Your task to perform on an android device: delete location history Image 0: 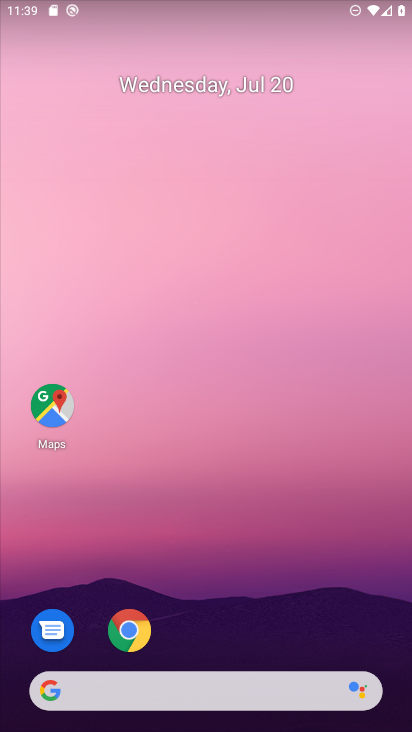
Step 0: drag from (237, 627) to (250, 184)
Your task to perform on an android device: delete location history Image 1: 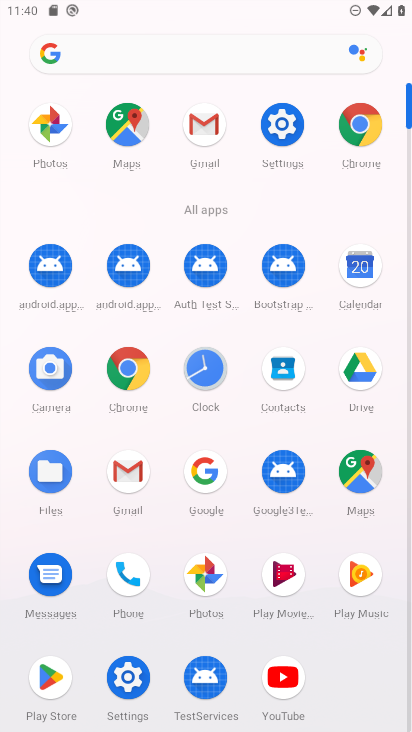
Step 1: click (129, 667)
Your task to perform on an android device: delete location history Image 2: 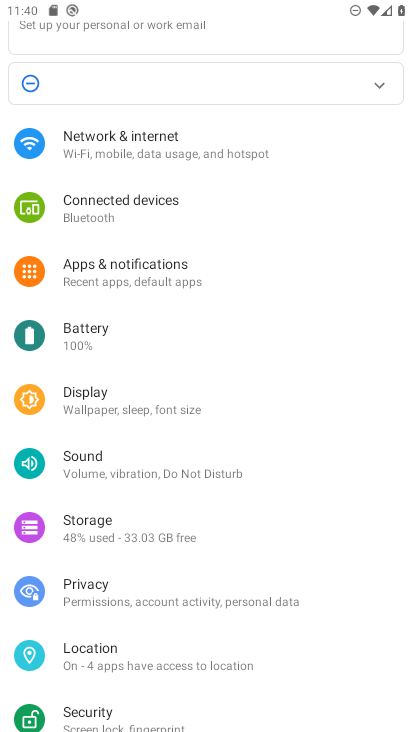
Step 2: press home button
Your task to perform on an android device: delete location history Image 3: 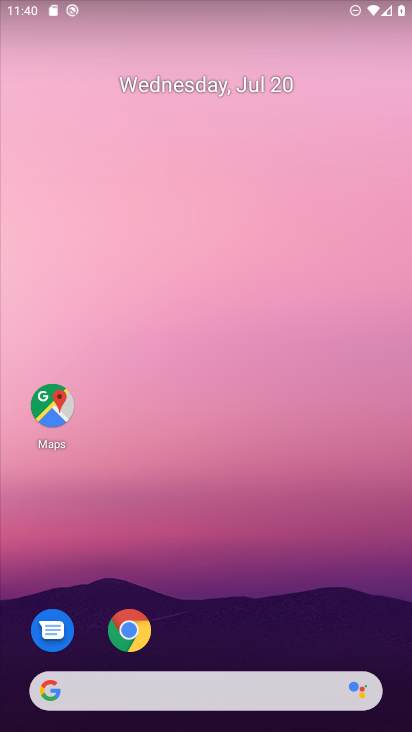
Step 3: click (39, 394)
Your task to perform on an android device: delete location history Image 4: 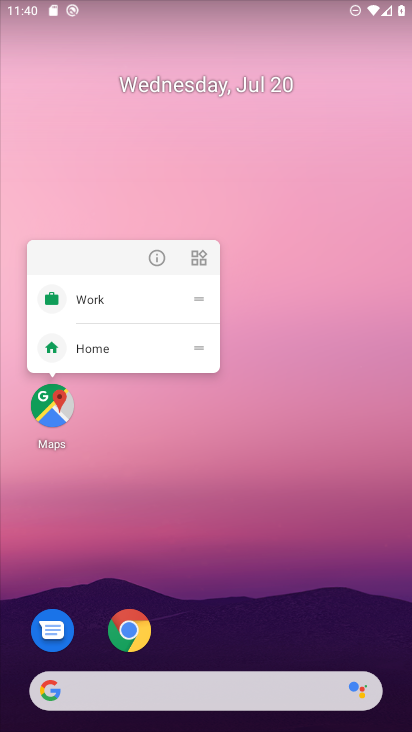
Step 4: click (51, 427)
Your task to perform on an android device: delete location history Image 5: 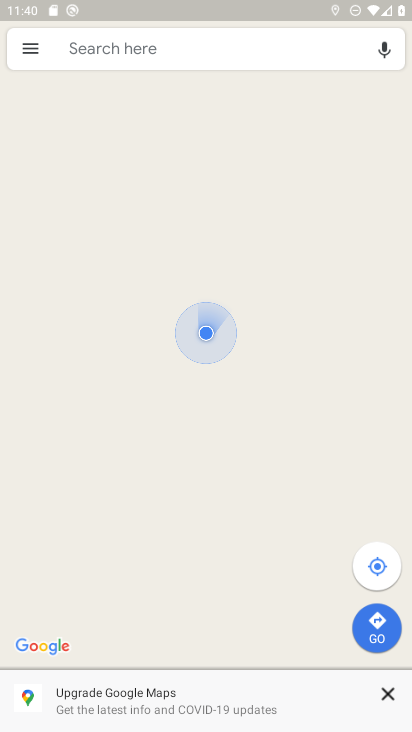
Step 5: click (27, 50)
Your task to perform on an android device: delete location history Image 6: 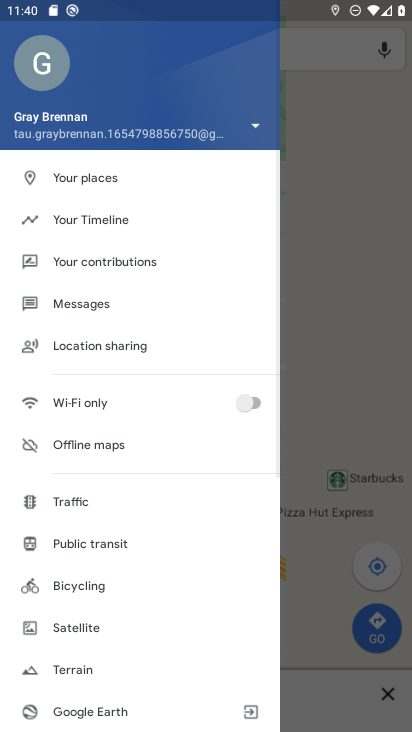
Step 6: click (111, 224)
Your task to perform on an android device: delete location history Image 7: 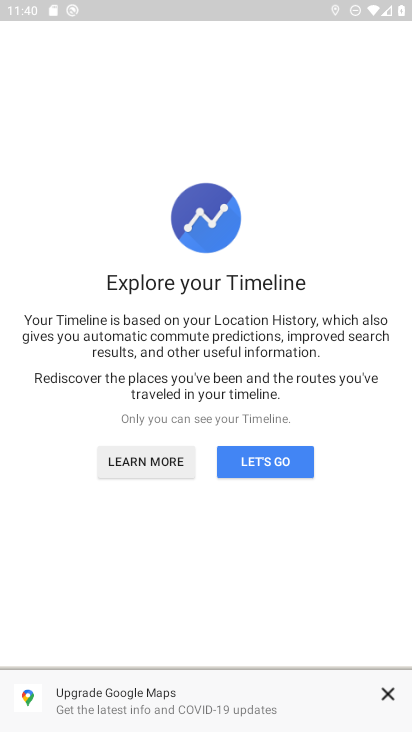
Step 7: click (267, 463)
Your task to perform on an android device: delete location history Image 8: 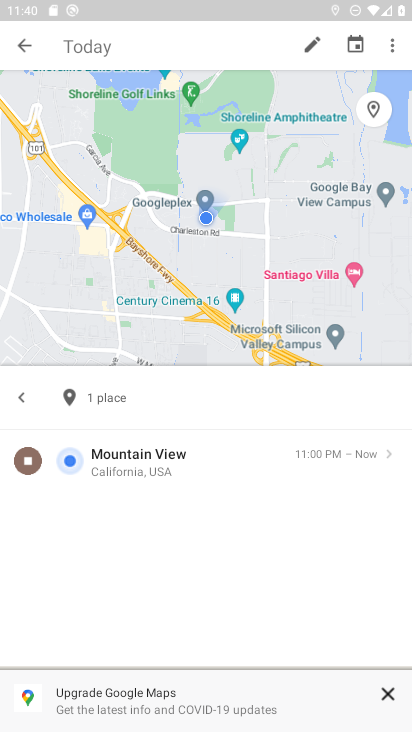
Step 8: click (390, 43)
Your task to perform on an android device: delete location history Image 9: 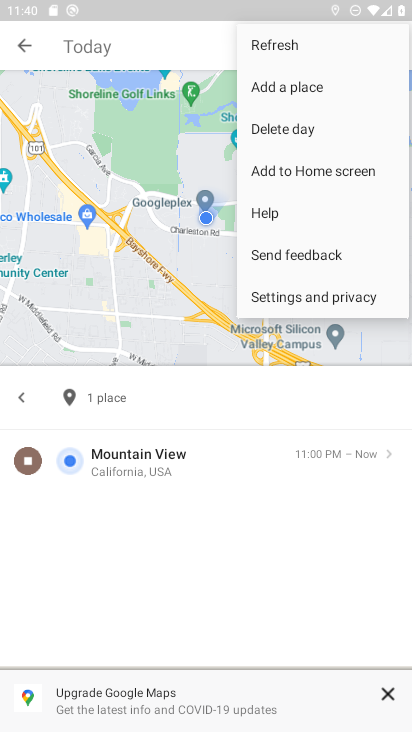
Step 9: click (304, 300)
Your task to perform on an android device: delete location history Image 10: 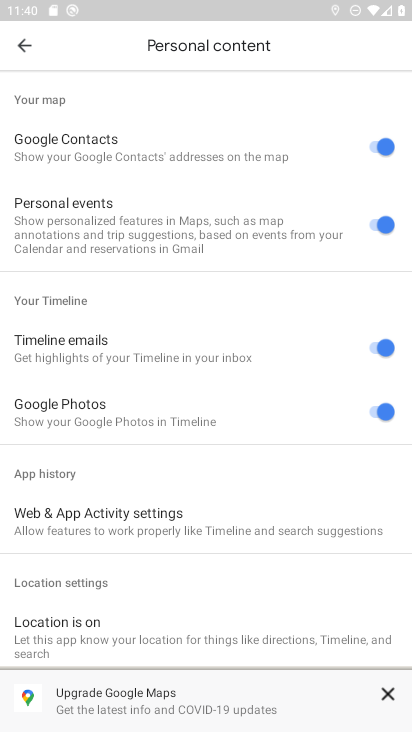
Step 10: drag from (184, 602) to (191, 340)
Your task to perform on an android device: delete location history Image 11: 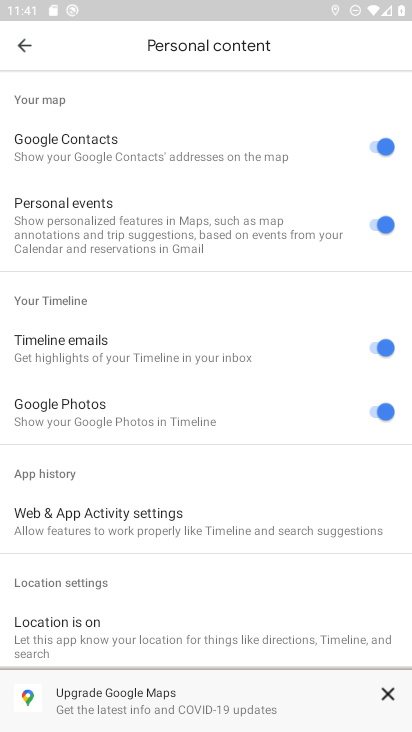
Step 11: click (382, 696)
Your task to perform on an android device: delete location history Image 12: 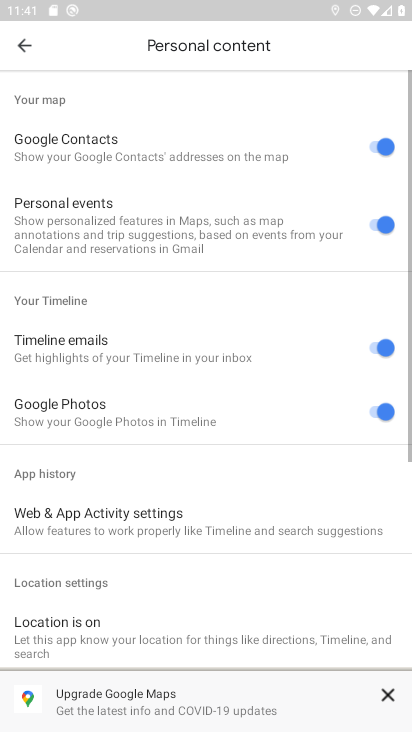
Step 12: drag from (243, 616) to (231, 341)
Your task to perform on an android device: delete location history Image 13: 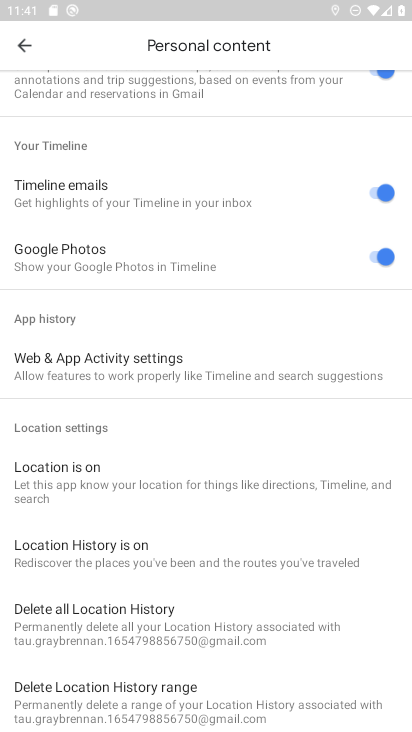
Step 13: click (153, 630)
Your task to perform on an android device: delete location history Image 14: 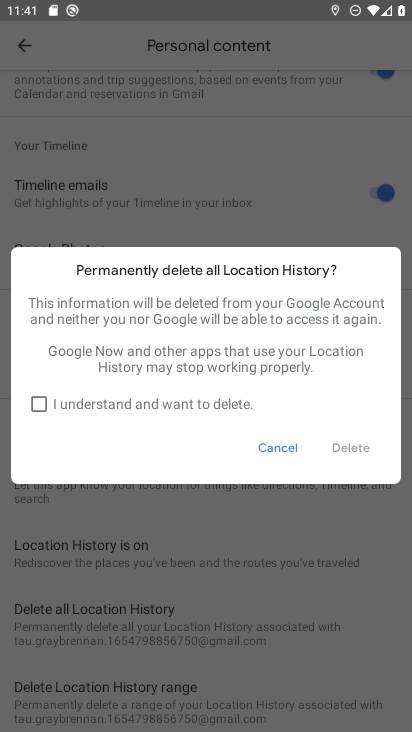
Step 14: click (112, 413)
Your task to perform on an android device: delete location history Image 15: 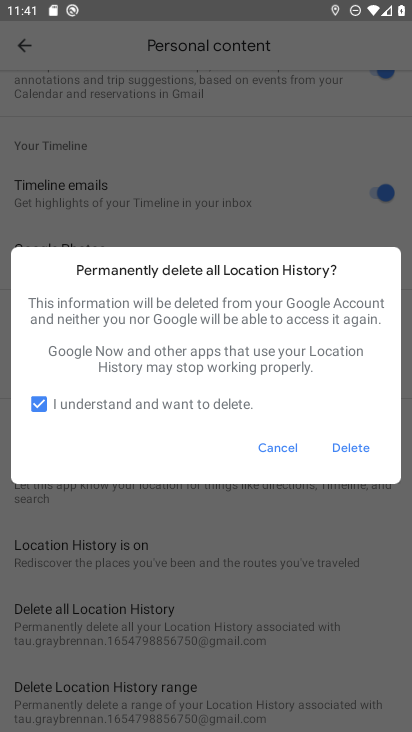
Step 15: click (367, 442)
Your task to perform on an android device: delete location history Image 16: 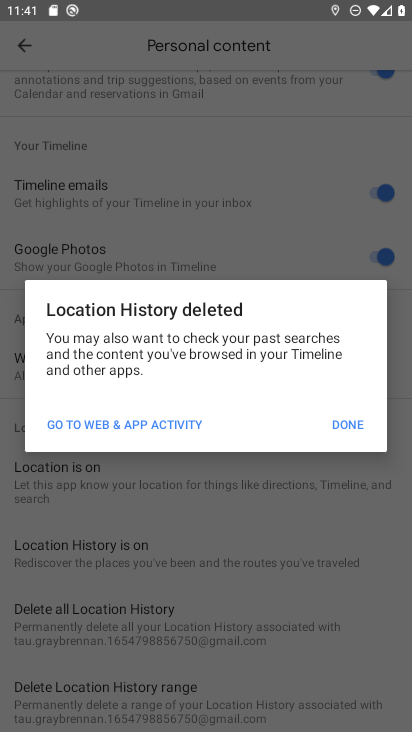
Step 16: click (352, 431)
Your task to perform on an android device: delete location history Image 17: 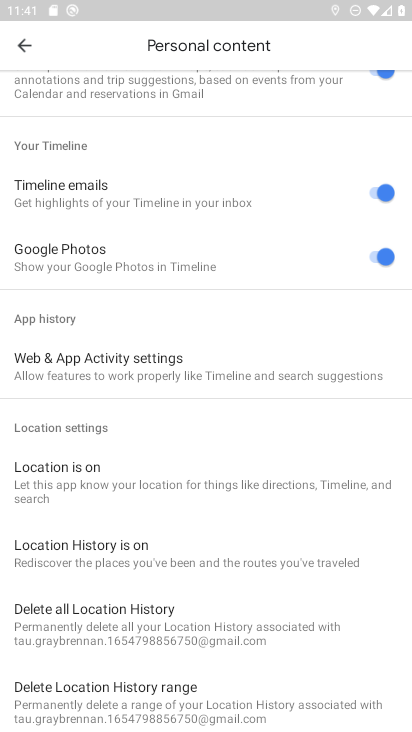
Step 17: task complete